Your task to perform on an android device: turn pop-ups off in chrome Image 0: 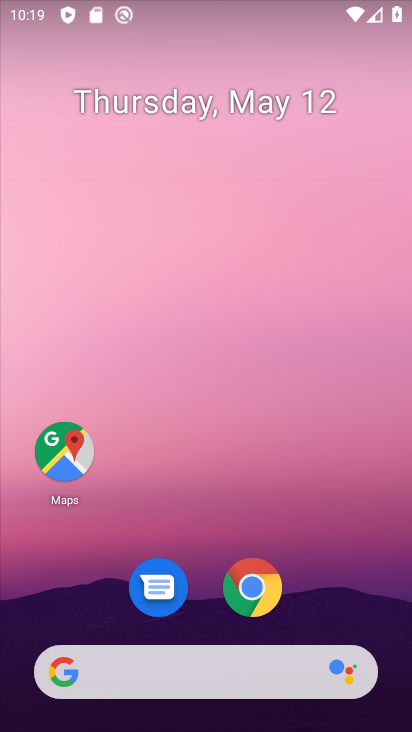
Step 0: drag from (350, 533) to (387, 75)
Your task to perform on an android device: turn pop-ups off in chrome Image 1: 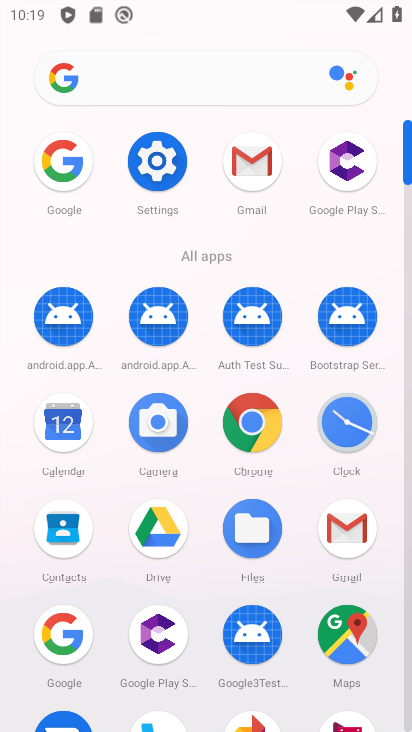
Step 1: click (244, 412)
Your task to perform on an android device: turn pop-ups off in chrome Image 2: 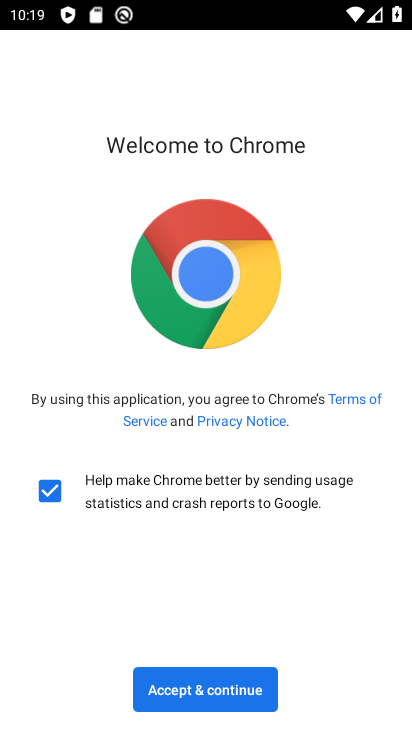
Step 2: click (207, 678)
Your task to perform on an android device: turn pop-ups off in chrome Image 3: 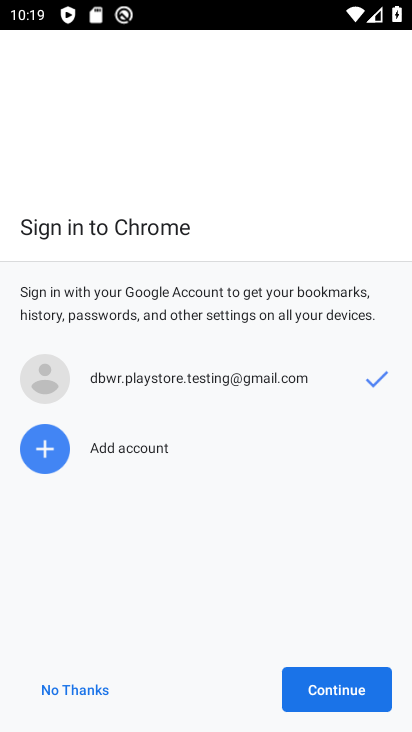
Step 3: click (335, 698)
Your task to perform on an android device: turn pop-ups off in chrome Image 4: 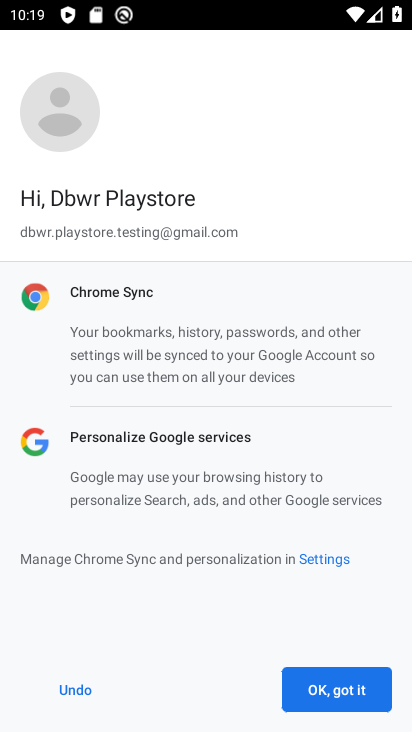
Step 4: click (330, 700)
Your task to perform on an android device: turn pop-ups off in chrome Image 5: 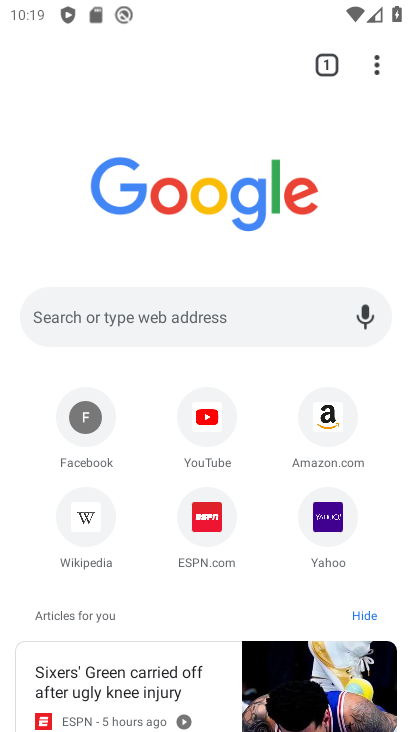
Step 5: drag from (371, 62) to (189, 535)
Your task to perform on an android device: turn pop-ups off in chrome Image 6: 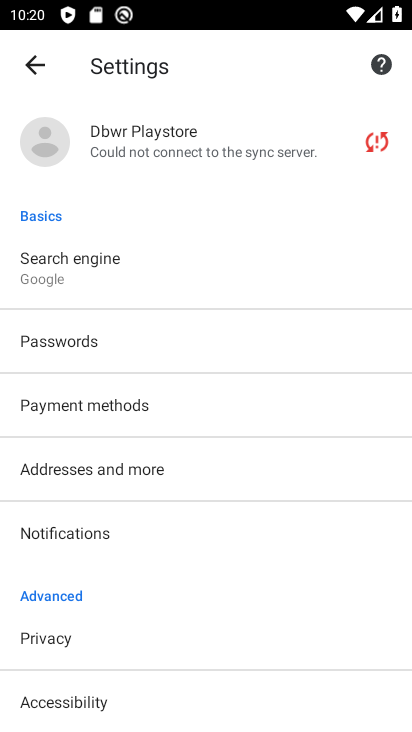
Step 6: drag from (162, 582) to (166, 239)
Your task to perform on an android device: turn pop-ups off in chrome Image 7: 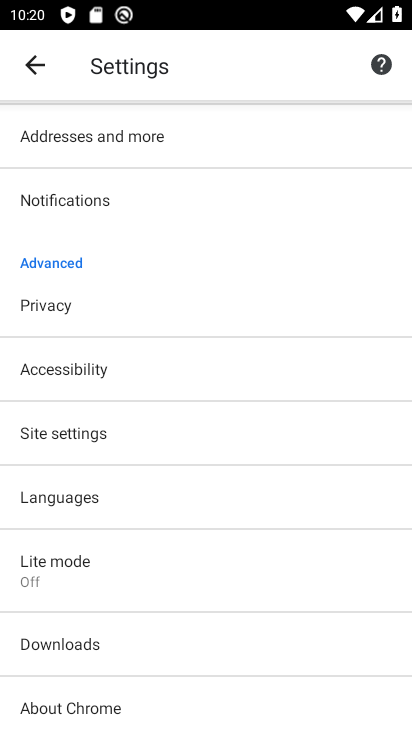
Step 7: click (136, 442)
Your task to perform on an android device: turn pop-ups off in chrome Image 8: 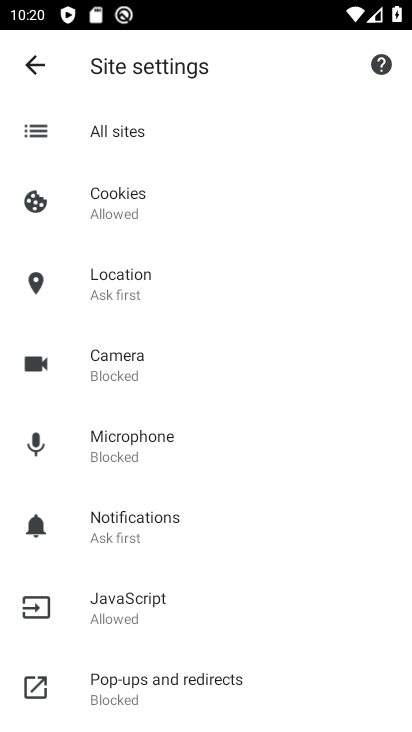
Step 8: click (124, 692)
Your task to perform on an android device: turn pop-ups off in chrome Image 9: 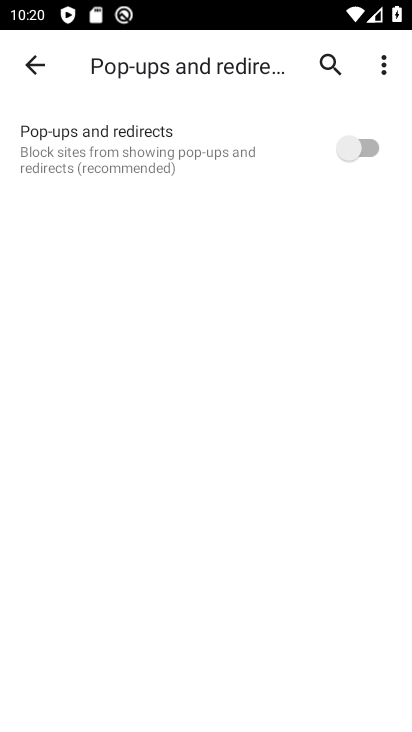
Step 9: task complete